Your task to perform on an android device: open a new tab in the chrome app Image 0: 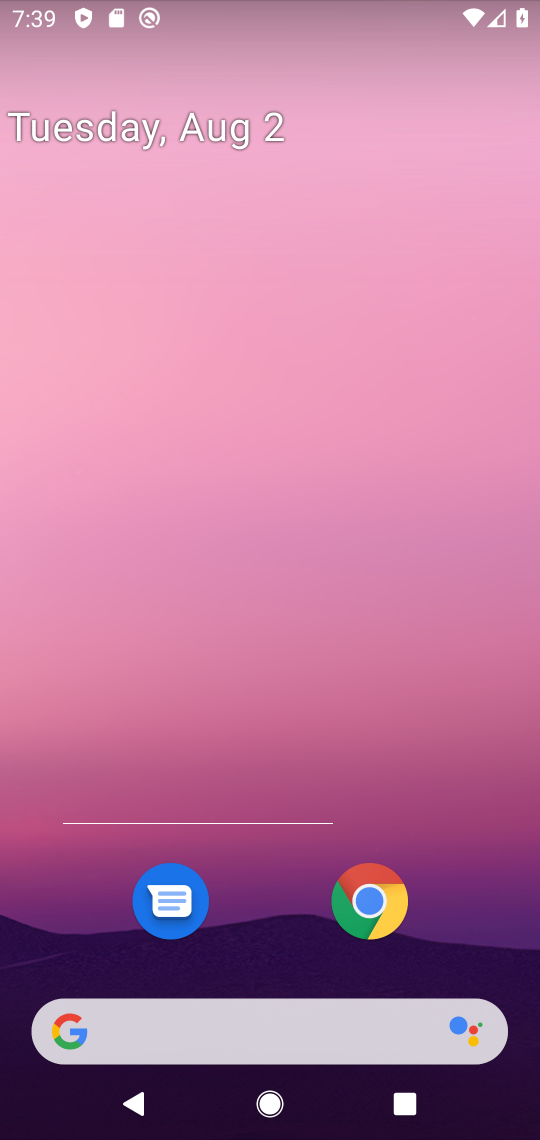
Step 0: click (374, 919)
Your task to perform on an android device: open a new tab in the chrome app Image 1: 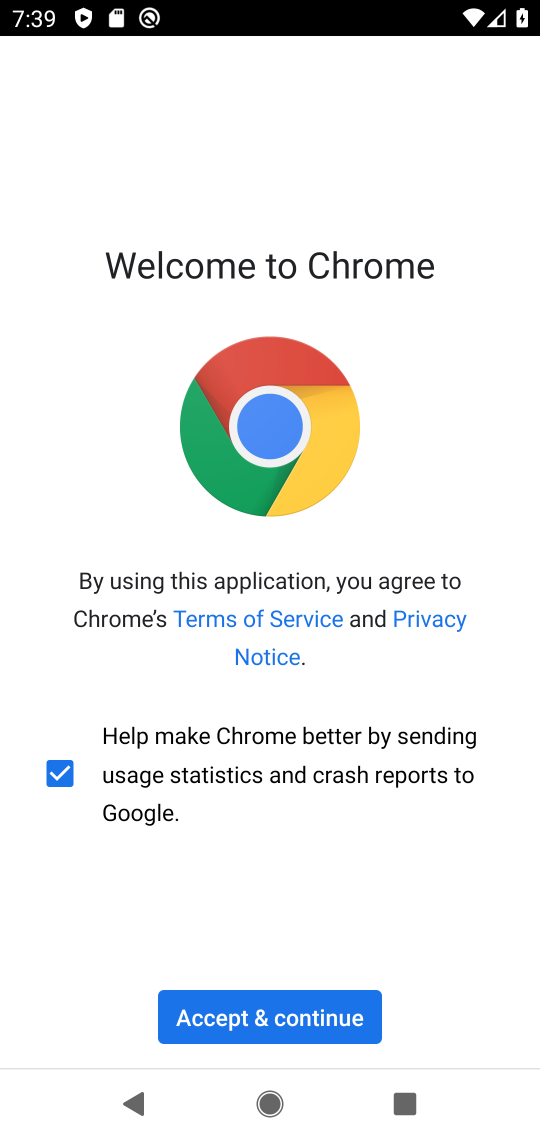
Step 1: click (352, 1019)
Your task to perform on an android device: open a new tab in the chrome app Image 2: 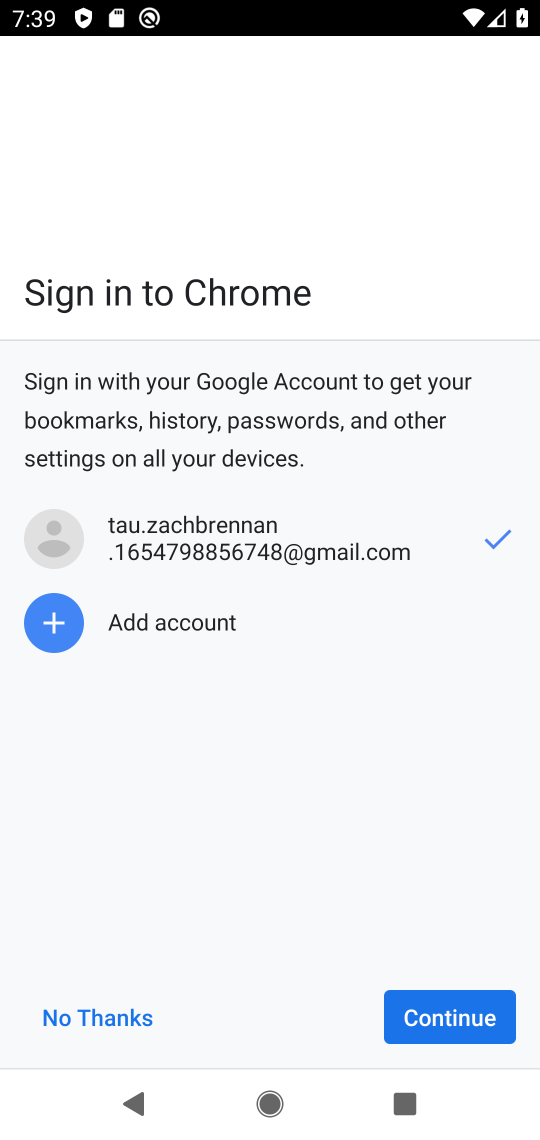
Step 2: click (412, 1020)
Your task to perform on an android device: open a new tab in the chrome app Image 3: 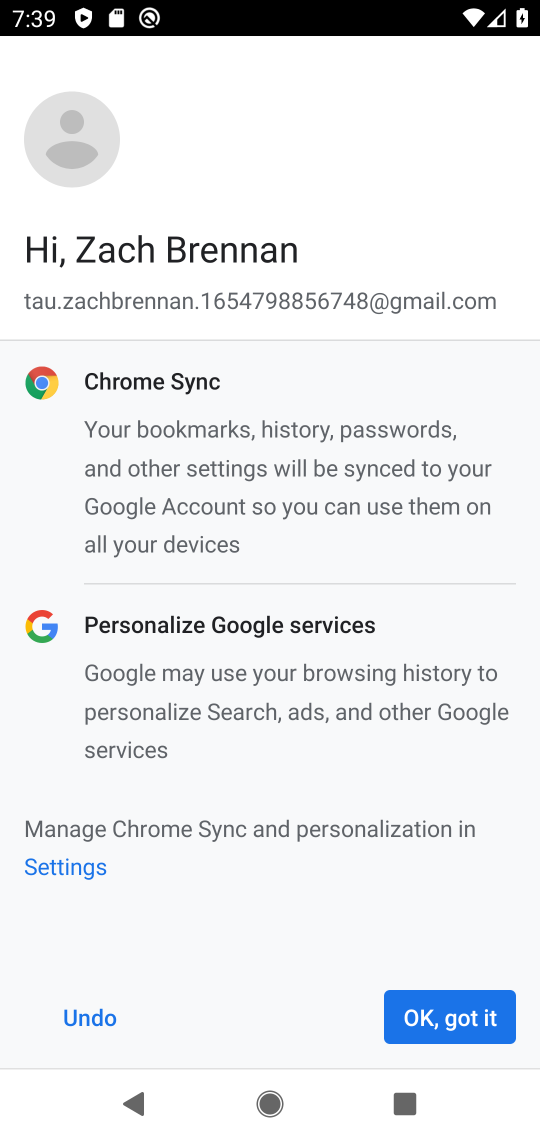
Step 3: click (412, 1020)
Your task to perform on an android device: open a new tab in the chrome app Image 4: 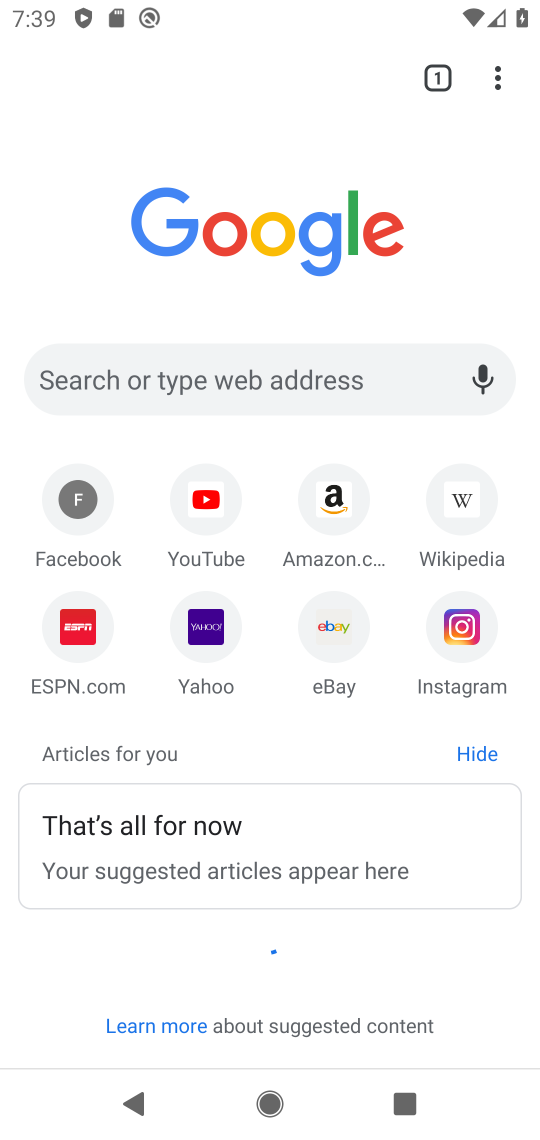
Step 4: click (497, 80)
Your task to perform on an android device: open a new tab in the chrome app Image 5: 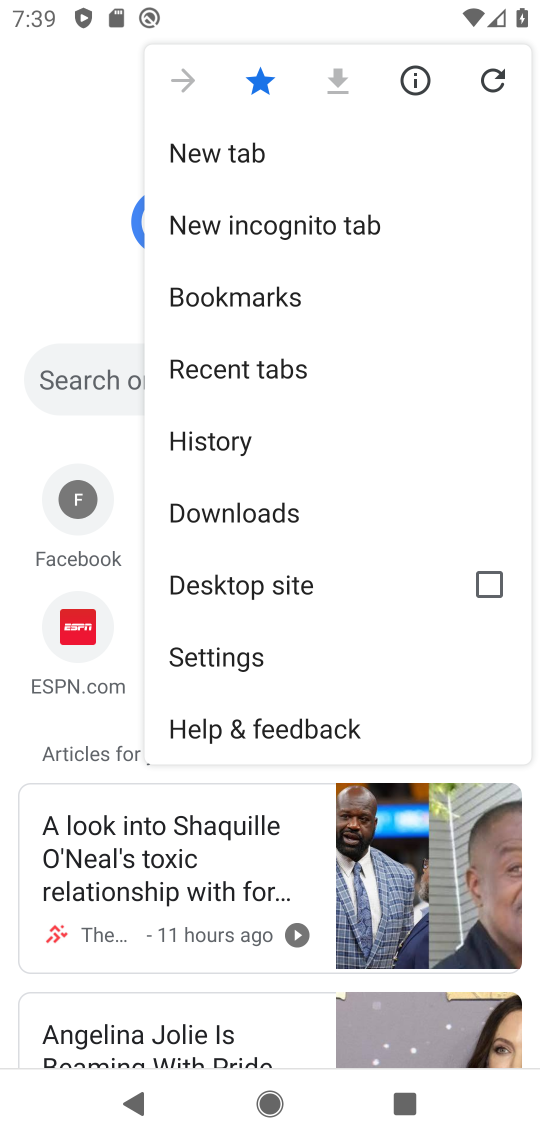
Step 5: click (400, 150)
Your task to perform on an android device: open a new tab in the chrome app Image 6: 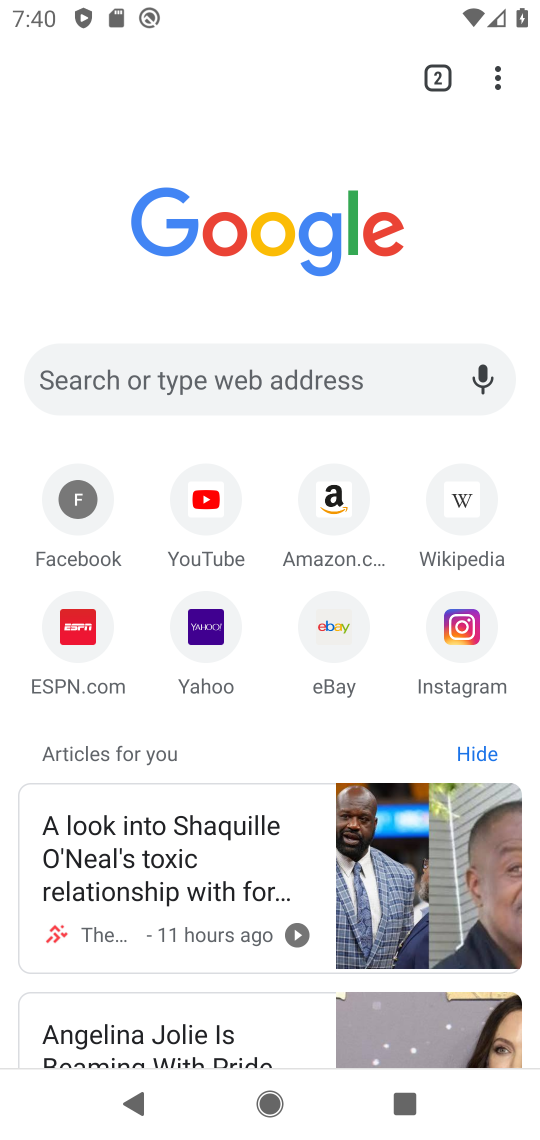
Step 6: task complete